Your task to perform on an android device: snooze an email in the gmail app Image 0: 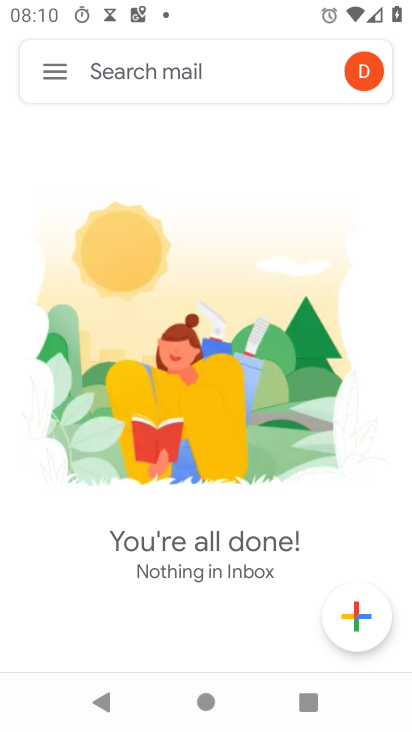
Step 0: press home button
Your task to perform on an android device: snooze an email in the gmail app Image 1: 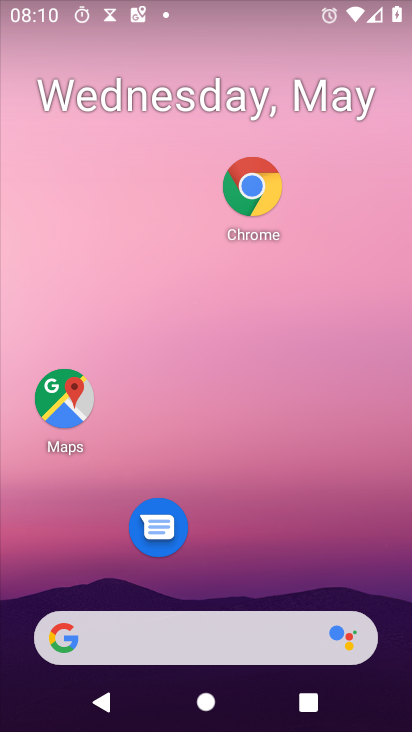
Step 1: drag from (270, 545) to (309, 133)
Your task to perform on an android device: snooze an email in the gmail app Image 2: 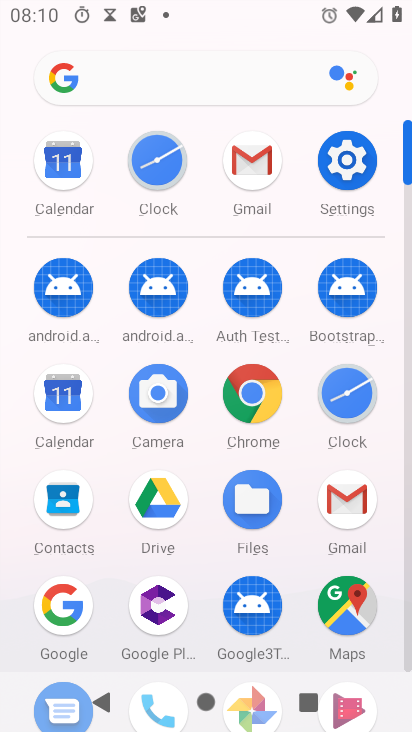
Step 2: click (348, 498)
Your task to perform on an android device: snooze an email in the gmail app Image 3: 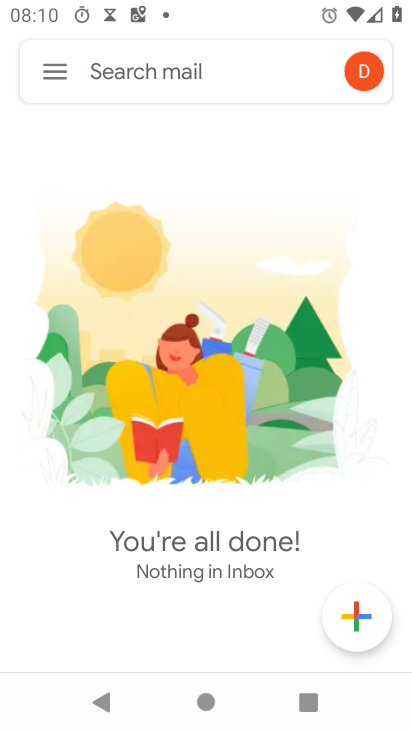
Step 3: task complete